Your task to perform on an android device: turn notification dots on Image 0: 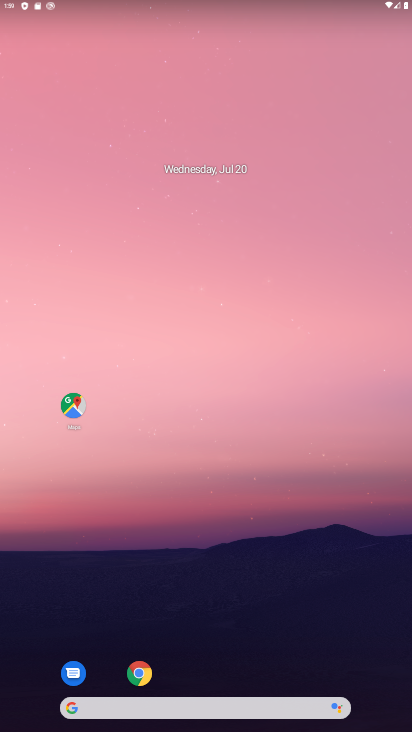
Step 0: drag from (295, 611) to (232, 144)
Your task to perform on an android device: turn notification dots on Image 1: 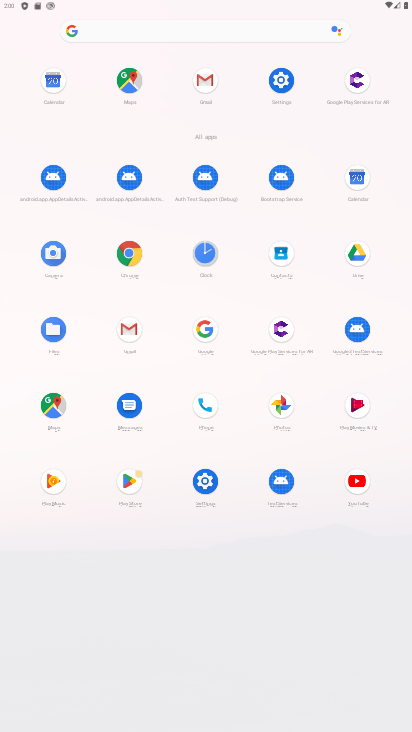
Step 1: click (220, 485)
Your task to perform on an android device: turn notification dots on Image 2: 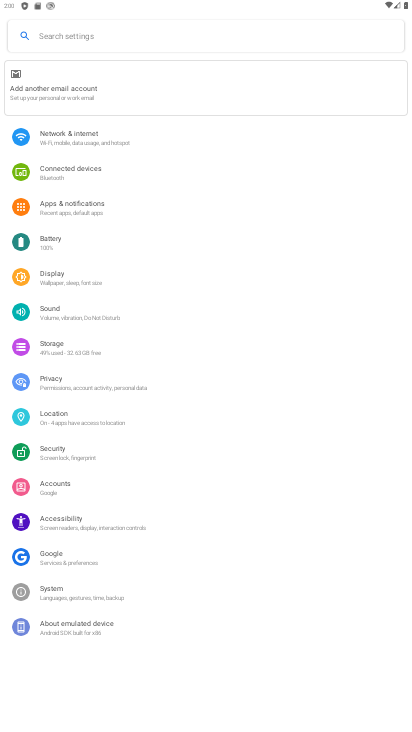
Step 2: click (84, 208)
Your task to perform on an android device: turn notification dots on Image 3: 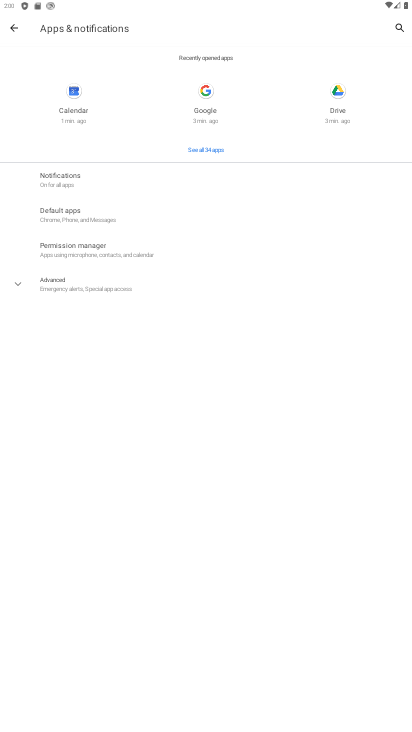
Step 3: click (74, 181)
Your task to perform on an android device: turn notification dots on Image 4: 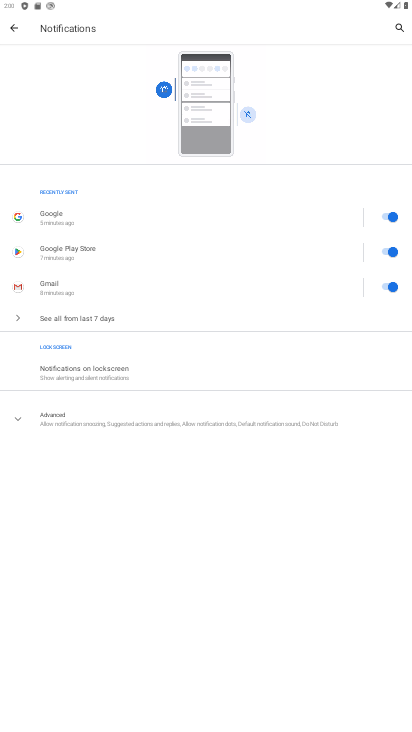
Step 4: click (116, 408)
Your task to perform on an android device: turn notification dots on Image 5: 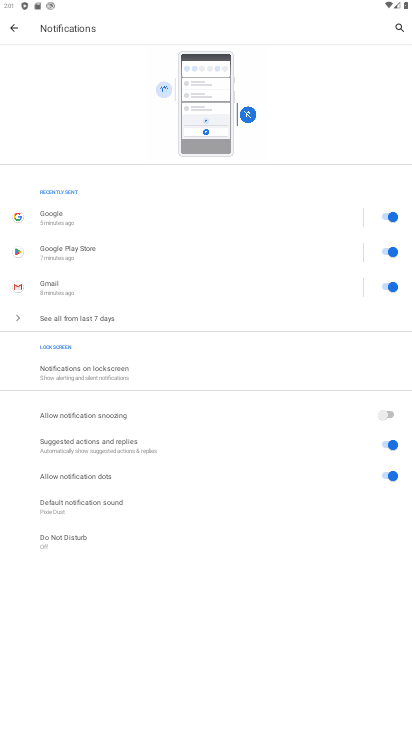
Step 5: task complete